Your task to perform on an android device: turn on the 12-hour format for clock Image 0: 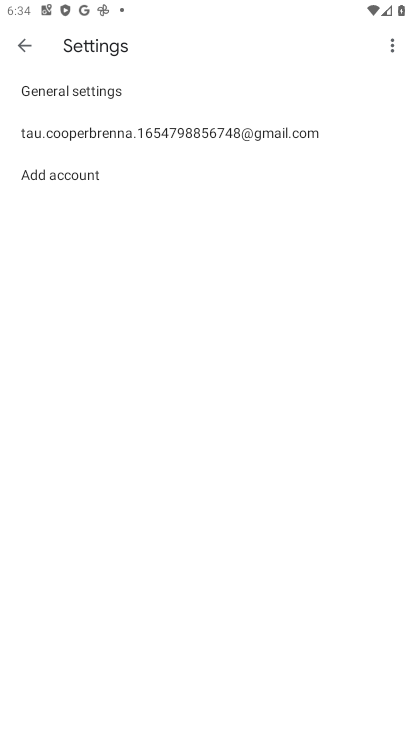
Step 0: press home button
Your task to perform on an android device: turn on the 12-hour format for clock Image 1: 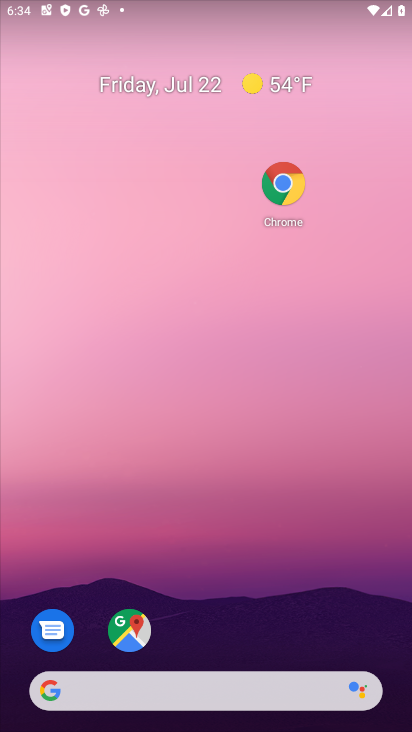
Step 1: drag from (208, 564) to (250, 221)
Your task to perform on an android device: turn on the 12-hour format for clock Image 2: 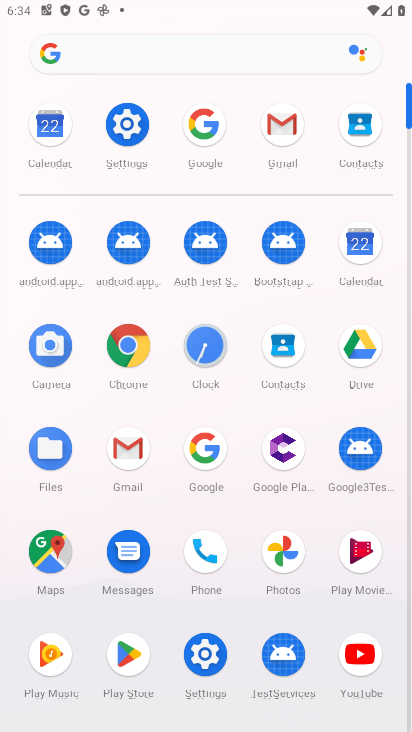
Step 2: click (208, 342)
Your task to perform on an android device: turn on the 12-hour format for clock Image 3: 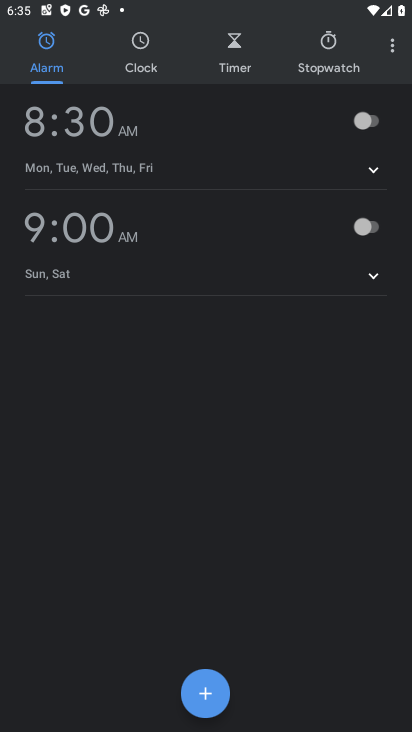
Step 3: click (392, 45)
Your task to perform on an android device: turn on the 12-hour format for clock Image 4: 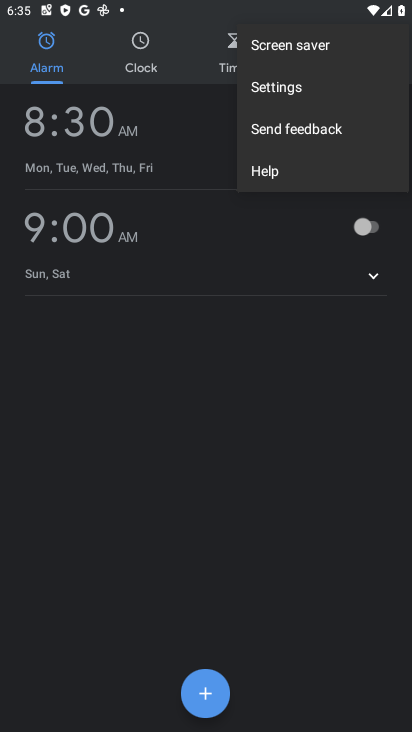
Step 4: click (296, 88)
Your task to perform on an android device: turn on the 12-hour format for clock Image 5: 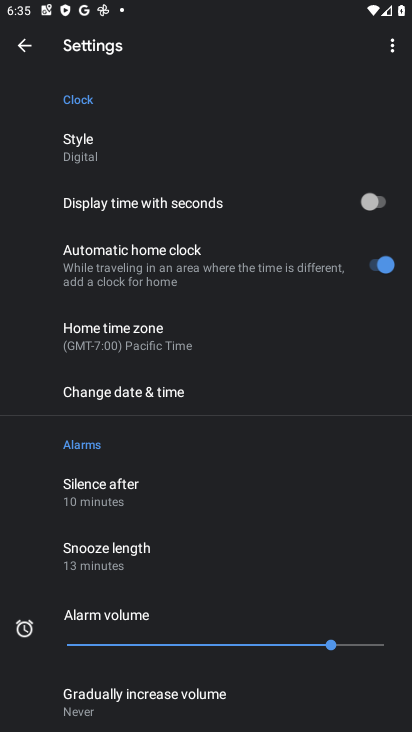
Step 5: click (140, 392)
Your task to perform on an android device: turn on the 12-hour format for clock Image 6: 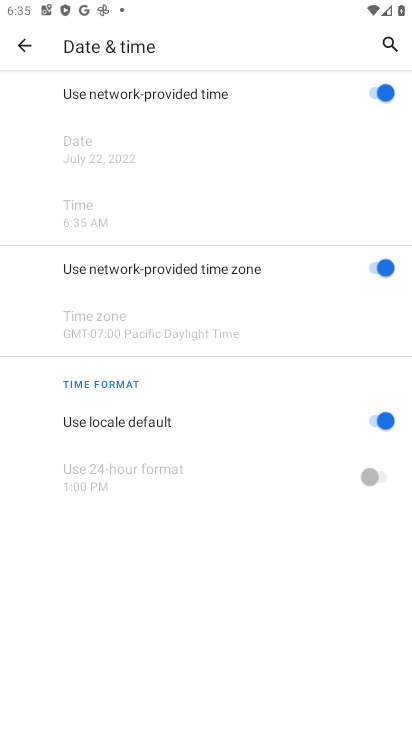
Step 6: task complete